Your task to perform on an android device: Is it going to rain this weekend? Image 0: 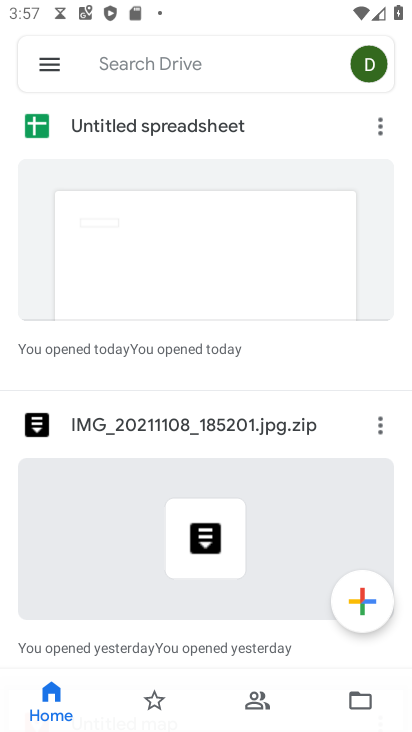
Step 0: press home button
Your task to perform on an android device: Is it going to rain this weekend? Image 1: 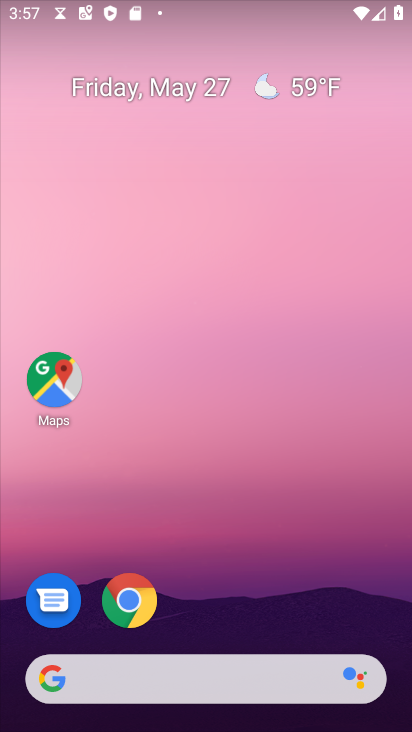
Step 1: drag from (245, 571) to (187, 97)
Your task to perform on an android device: Is it going to rain this weekend? Image 2: 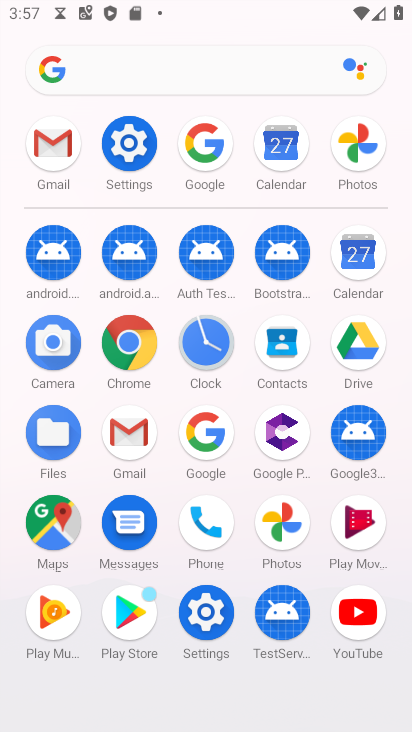
Step 2: click (200, 141)
Your task to perform on an android device: Is it going to rain this weekend? Image 3: 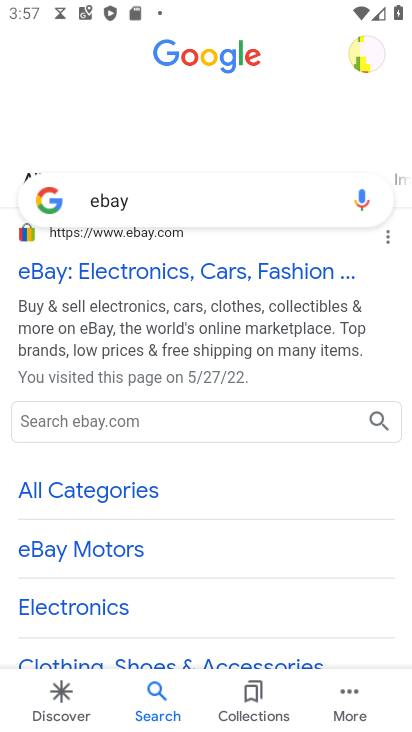
Step 3: click (187, 190)
Your task to perform on an android device: Is it going to rain this weekend? Image 4: 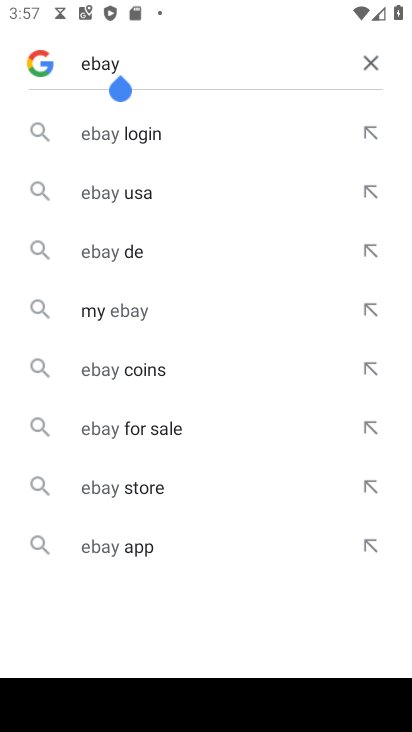
Step 4: click (374, 57)
Your task to perform on an android device: Is it going to rain this weekend? Image 5: 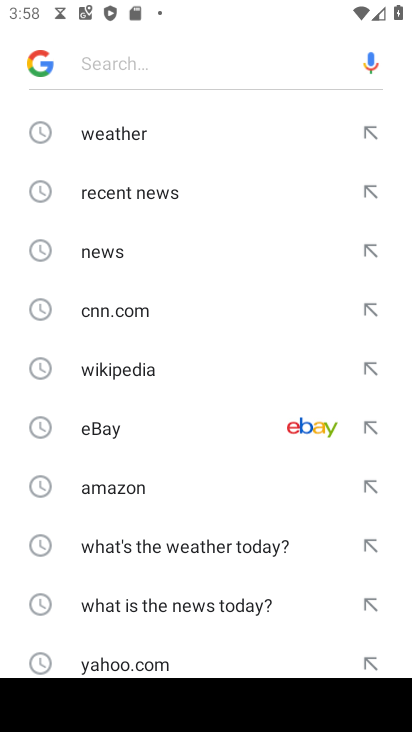
Step 5: type "Is it going to rain this weekend"
Your task to perform on an android device: Is it going to rain this weekend? Image 6: 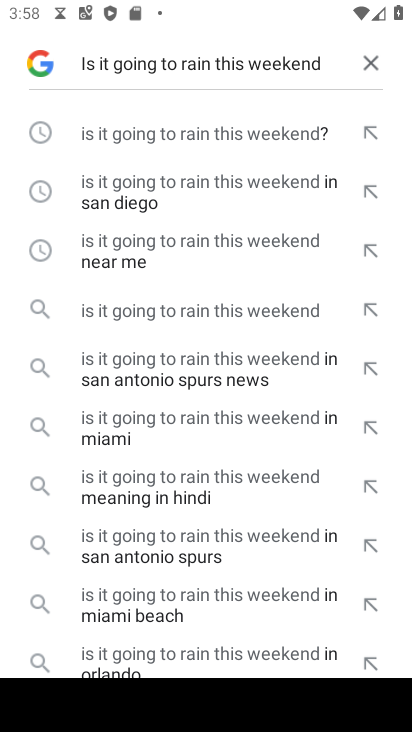
Step 6: click (204, 135)
Your task to perform on an android device: Is it going to rain this weekend? Image 7: 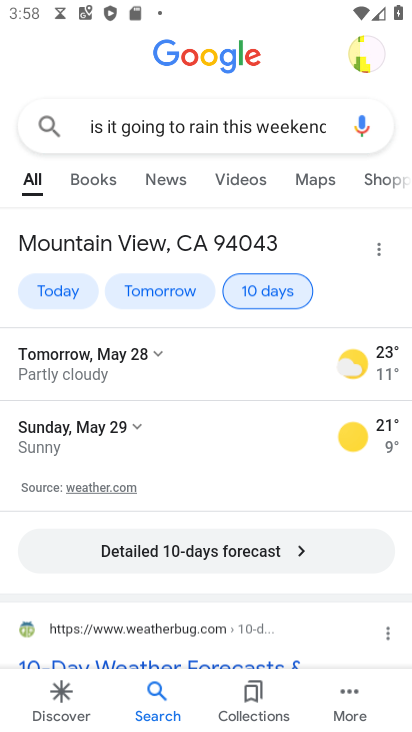
Step 7: task complete